Your task to perform on an android device: Open Chrome and go to settings Image 0: 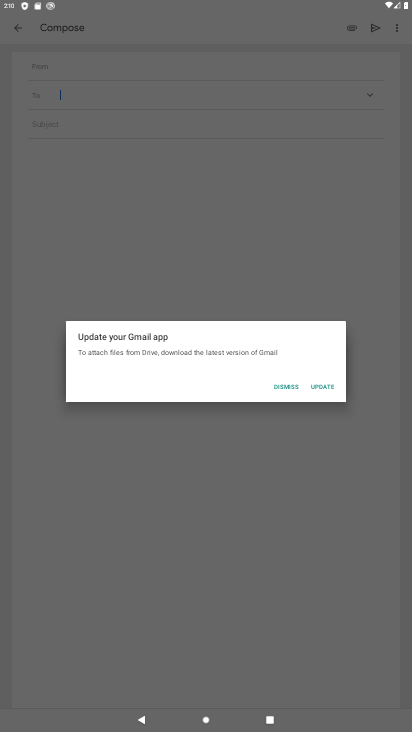
Step 0: press home button
Your task to perform on an android device: Open Chrome and go to settings Image 1: 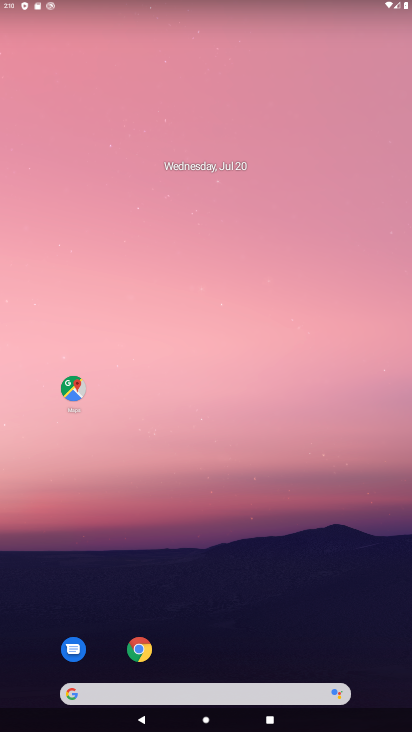
Step 1: click (143, 644)
Your task to perform on an android device: Open Chrome and go to settings Image 2: 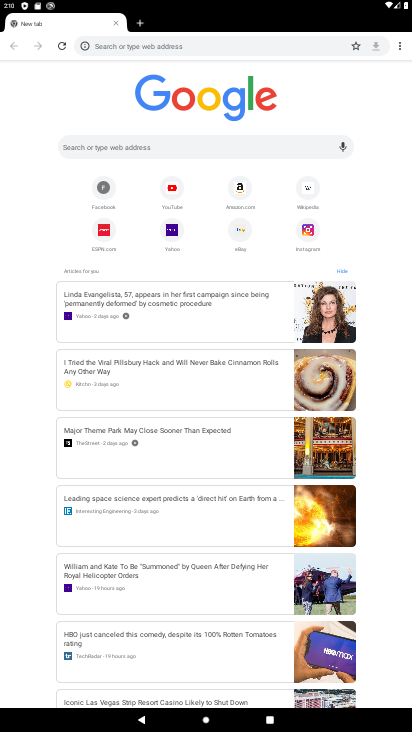
Step 2: click (402, 37)
Your task to perform on an android device: Open Chrome and go to settings Image 3: 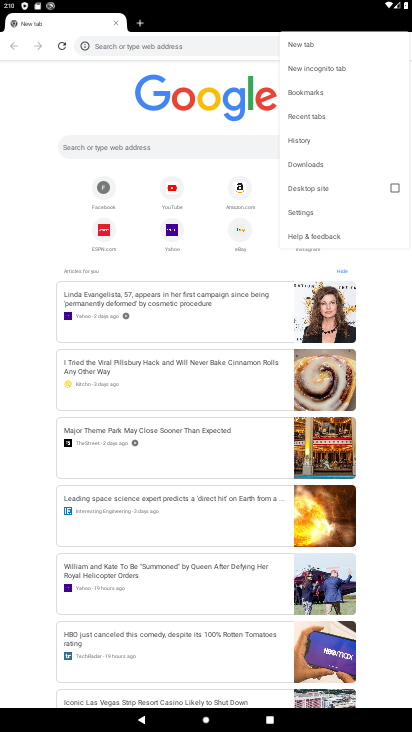
Step 3: click (305, 213)
Your task to perform on an android device: Open Chrome and go to settings Image 4: 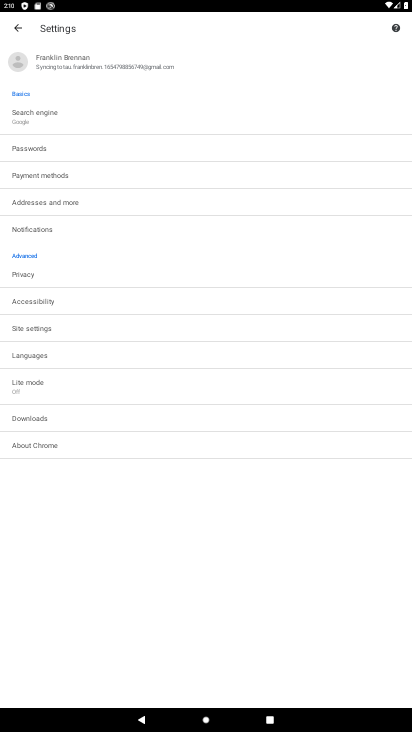
Step 4: task complete